Your task to perform on an android device: Go to sound settings Image 0: 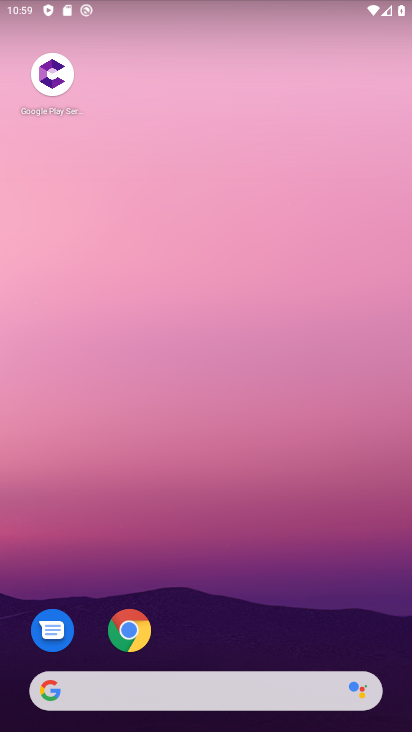
Step 0: drag from (225, 634) to (286, 223)
Your task to perform on an android device: Go to sound settings Image 1: 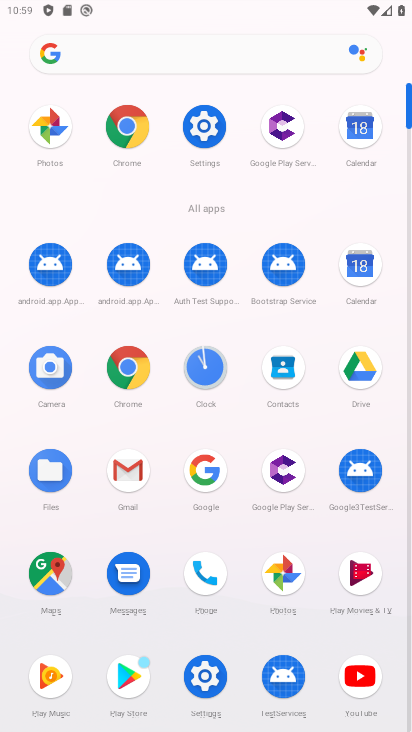
Step 1: click (217, 144)
Your task to perform on an android device: Go to sound settings Image 2: 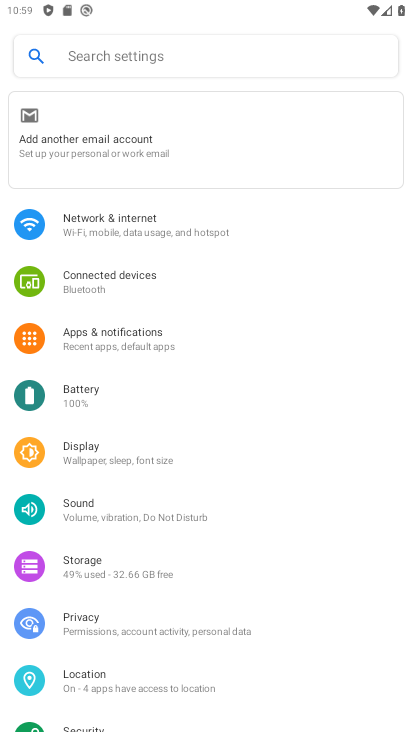
Step 2: click (124, 519)
Your task to perform on an android device: Go to sound settings Image 3: 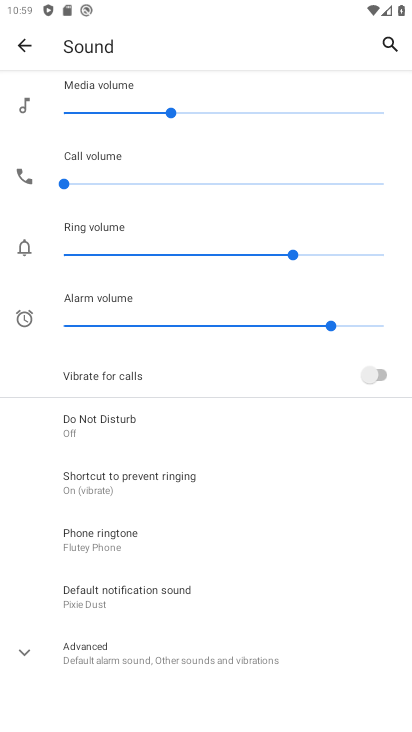
Step 3: task complete